Your task to perform on an android device: open a bookmark in the chrome app Image 0: 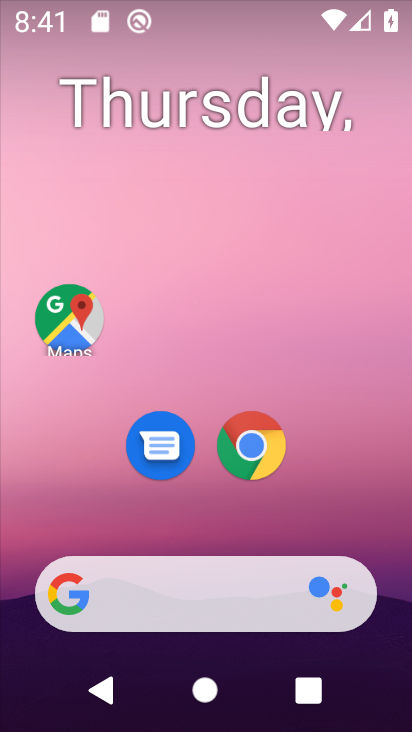
Step 0: drag from (351, 457) to (313, 33)
Your task to perform on an android device: open a bookmark in the chrome app Image 1: 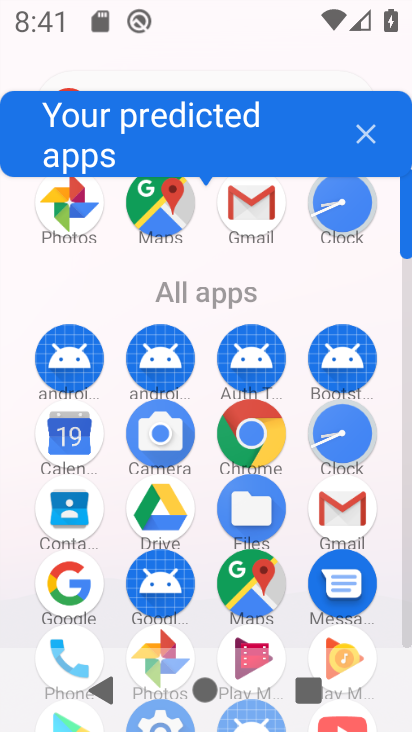
Step 1: click (254, 442)
Your task to perform on an android device: open a bookmark in the chrome app Image 2: 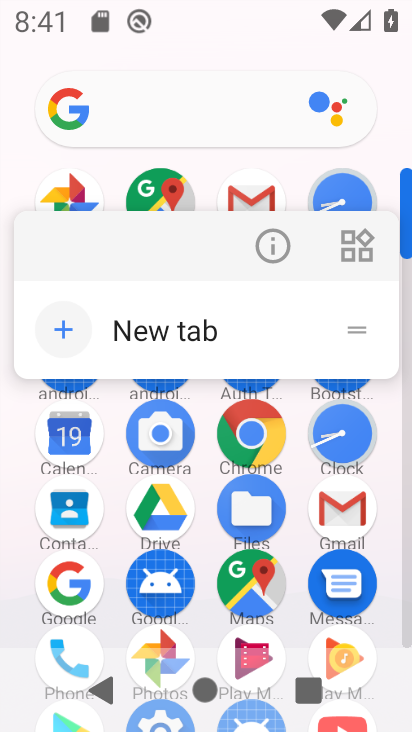
Step 2: click (254, 442)
Your task to perform on an android device: open a bookmark in the chrome app Image 3: 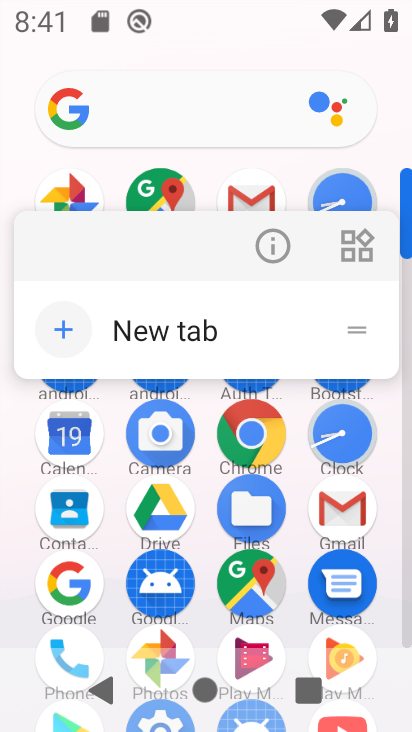
Step 3: click (254, 442)
Your task to perform on an android device: open a bookmark in the chrome app Image 4: 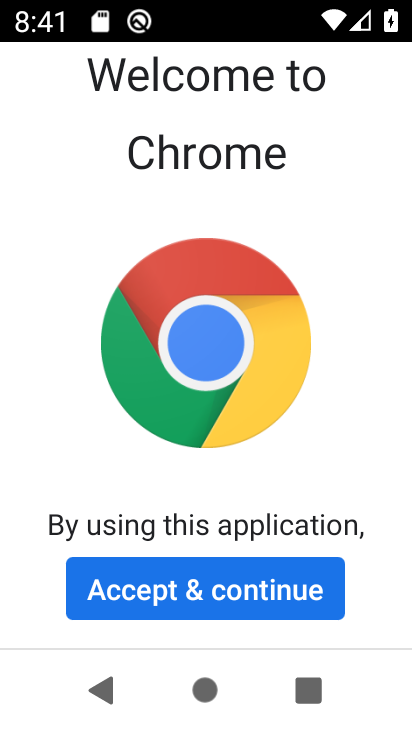
Step 4: click (210, 591)
Your task to perform on an android device: open a bookmark in the chrome app Image 5: 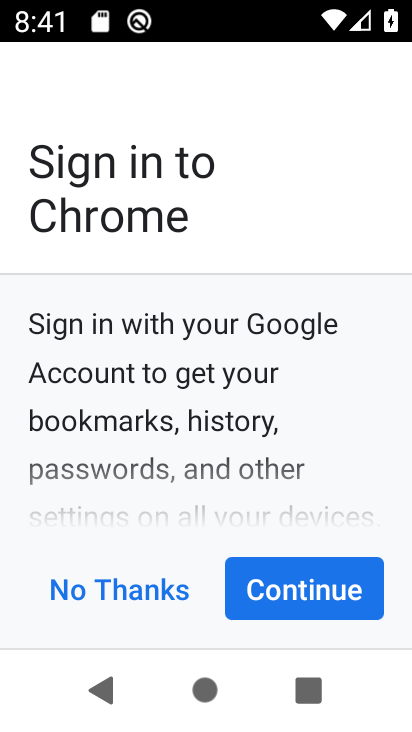
Step 5: click (98, 588)
Your task to perform on an android device: open a bookmark in the chrome app Image 6: 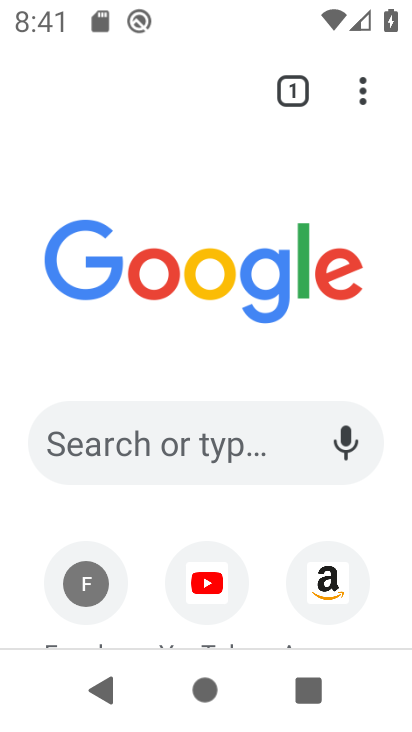
Step 6: drag from (365, 88) to (136, 378)
Your task to perform on an android device: open a bookmark in the chrome app Image 7: 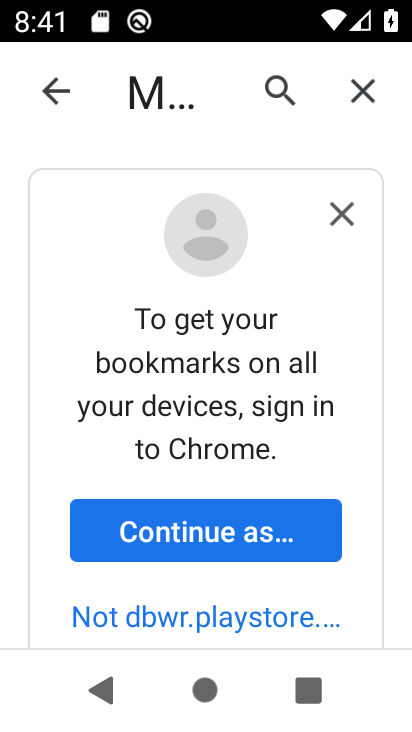
Step 7: drag from (234, 601) to (213, 319)
Your task to perform on an android device: open a bookmark in the chrome app Image 8: 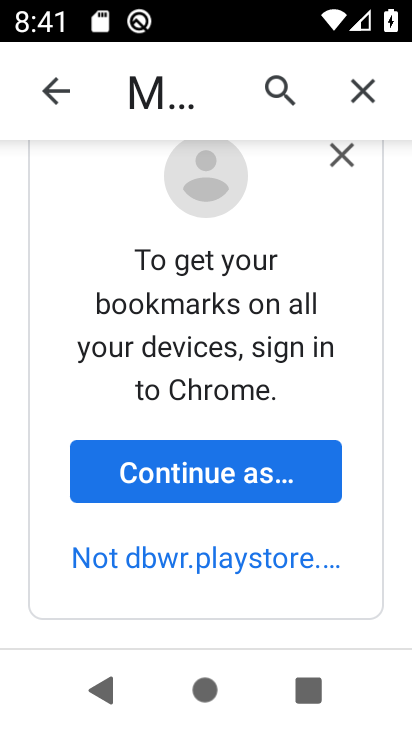
Step 8: click (195, 470)
Your task to perform on an android device: open a bookmark in the chrome app Image 9: 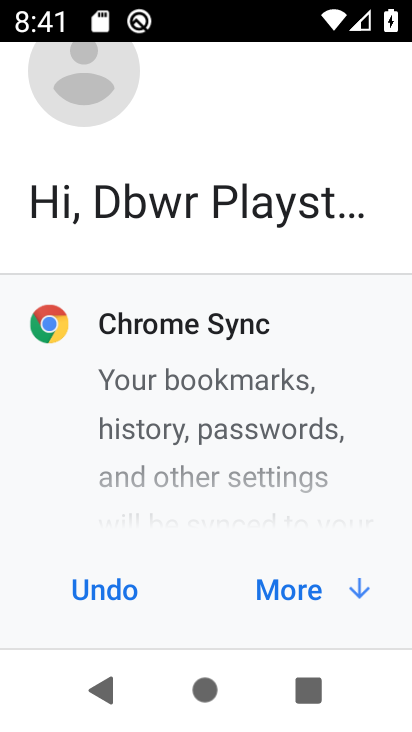
Step 9: click (272, 585)
Your task to perform on an android device: open a bookmark in the chrome app Image 10: 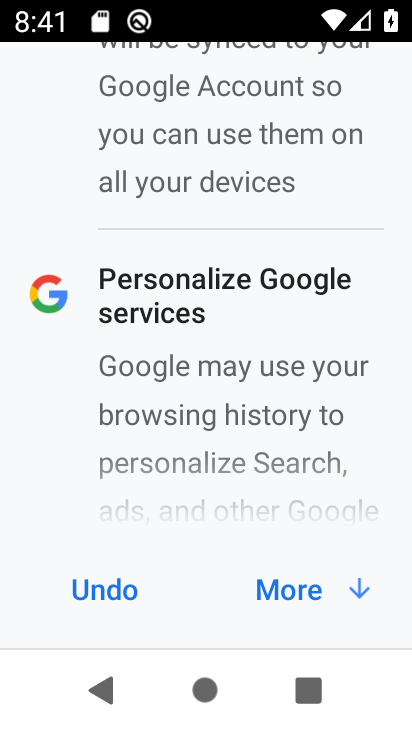
Step 10: click (272, 585)
Your task to perform on an android device: open a bookmark in the chrome app Image 11: 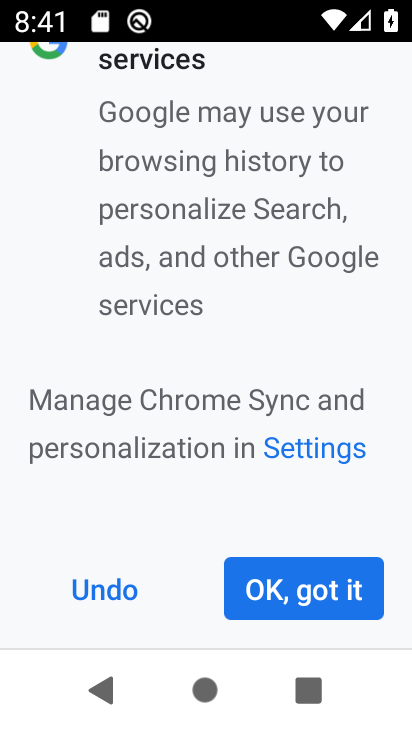
Step 11: click (272, 585)
Your task to perform on an android device: open a bookmark in the chrome app Image 12: 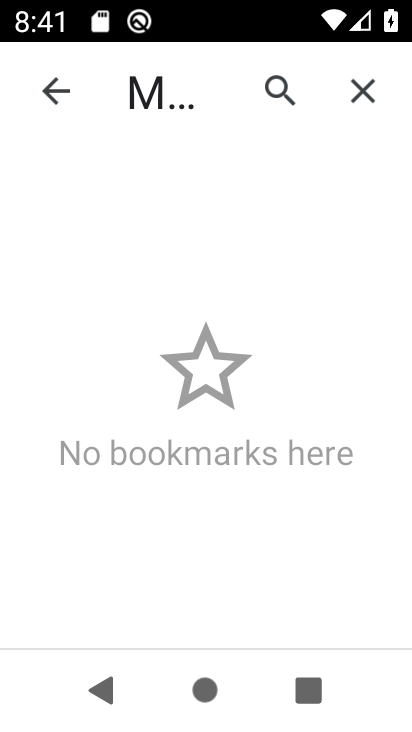
Step 12: task complete